Your task to perform on an android device: turn notification dots on Image 0: 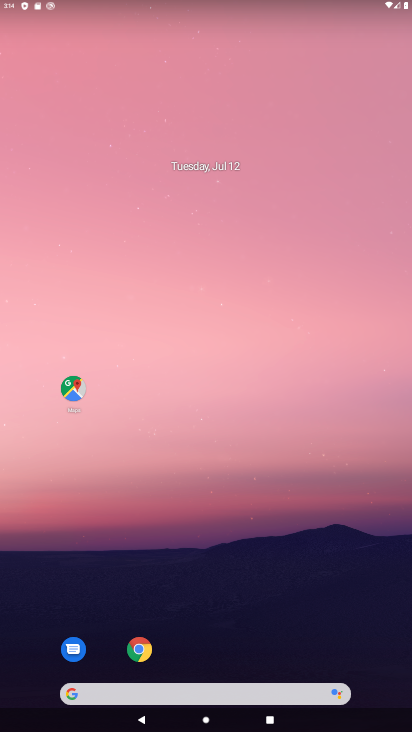
Step 0: drag from (209, 691) to (226, 300)
Your task to perform on an android device: turn notification dots on Image 1: 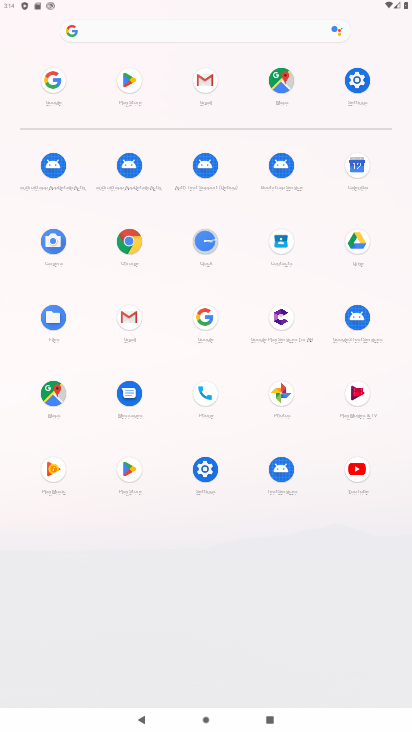
Step 1: click (344, 84)
Your task to perform on an android device: turn notification dots on Image 2: 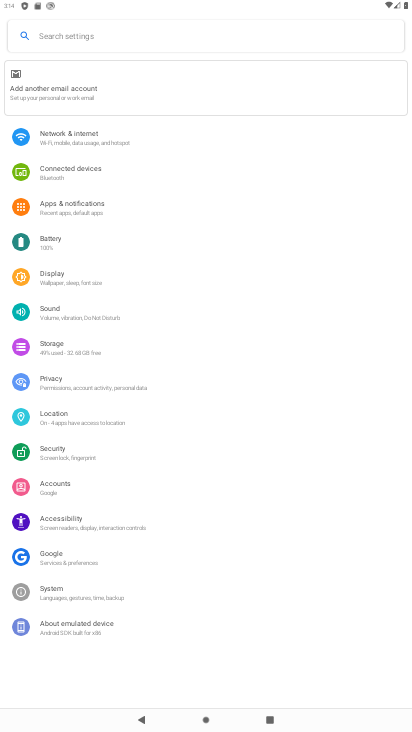
Step 2: click (88, 203)
Your task to perform on an android device: turn notification dots on Image 3: 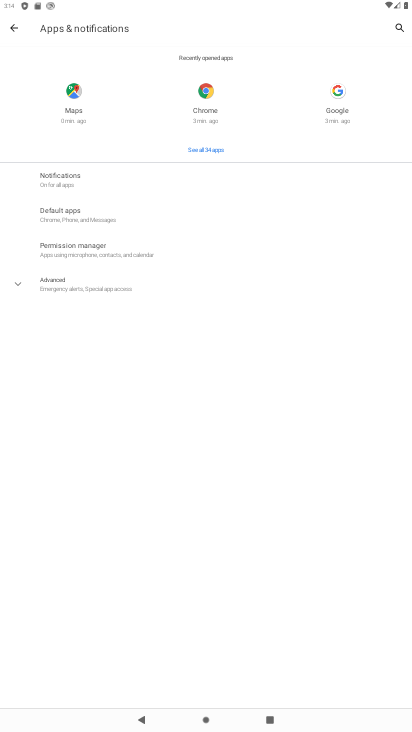
Step 3: click (63, 177)
Your task to perform on an android device: turn notification dots on Image 4: 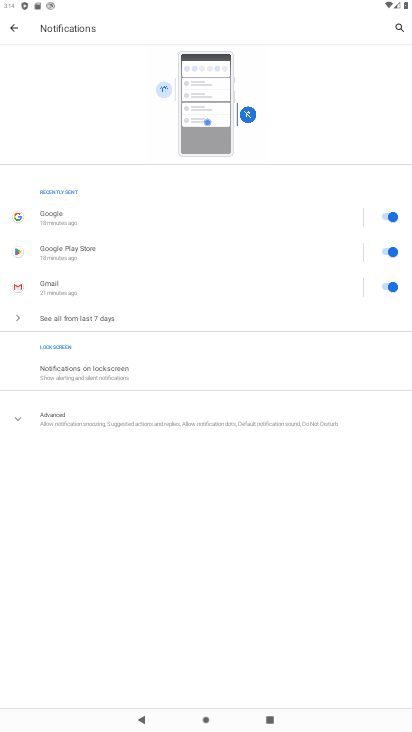
Step 4: click (57, 406)
Your task to perform on an android device: turn notification dots on Image 5: 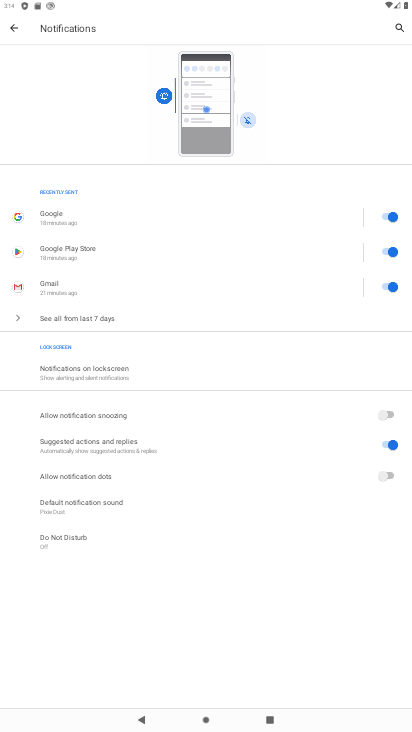
Step 5: click (389, 471)
Your task to perform on an android device: turn notification dots on Image 6: 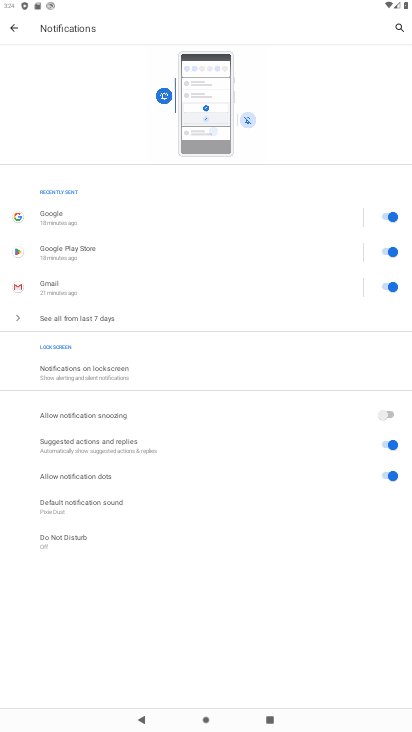
Step 6: task complete